Your task to perform on an android device: What's the weather going to be this weekend? Image 0: 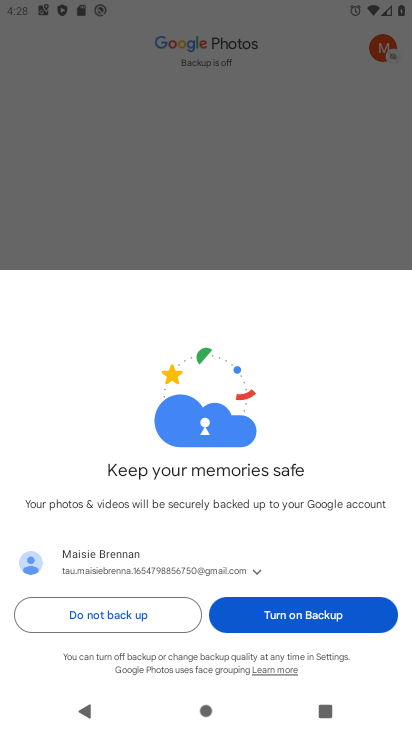
Step 0: press home button
Your task to perform on an android device: What's the weather going to be this weekend? Image 1: 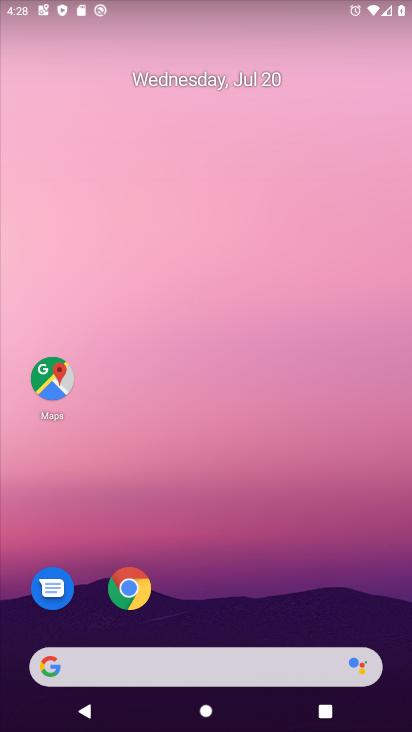
Step 1: drag from (323, 524) to (321, 46)
Your task to perform on an android device: What's the weather going to be this weekend? Image 2: 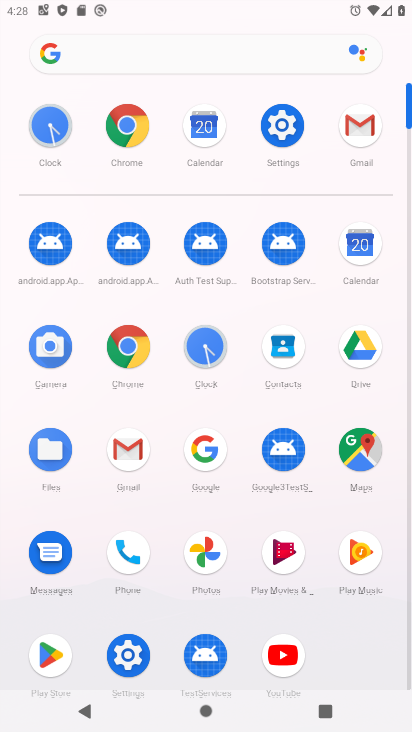
Step 2: click (127, 349)
Your task to perform on an android device: What's the weather going to be this weekend? Image 3: 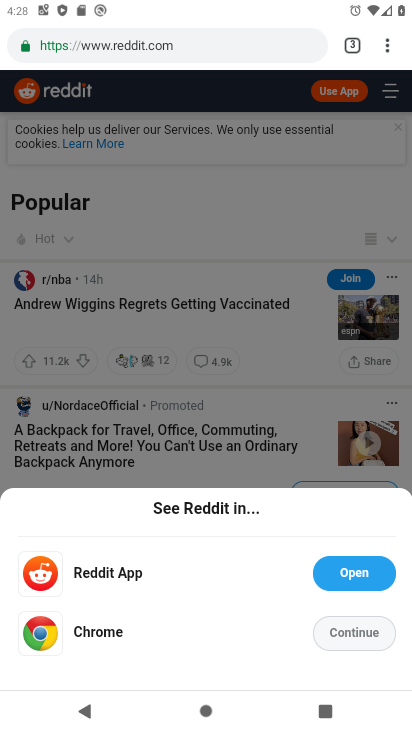
Step 3: click (194, 40)
Your task to perform on an android device: What's the weather going to be this weekend? Image 4: 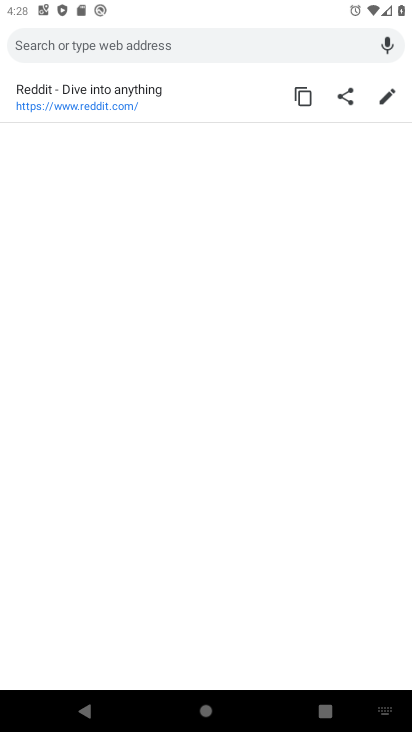
Step 4: type "weather"
Your task to perform on an android device: What's the weather going to be this weekend? Image 5: 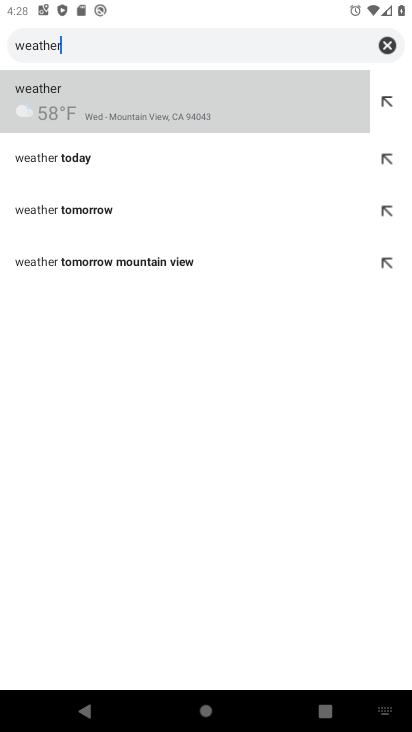
Step 5: click (163, 107)
Your task to perform on an android device: What's the weather going to be this weekend? Image 6: 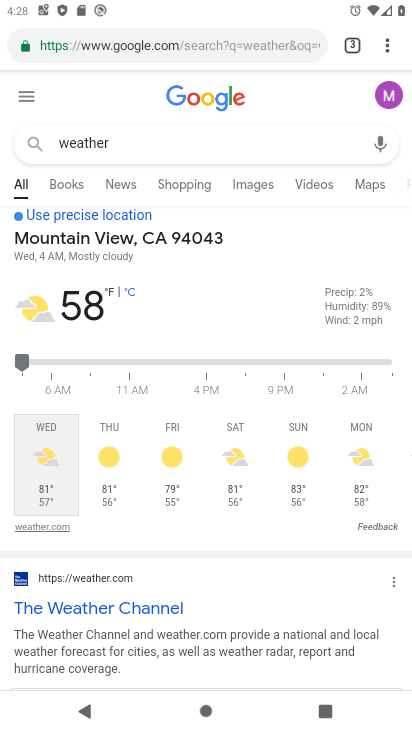
Step 6: click (241, 454)
Your task to perform on an android device: What's the weather going to be this weekend? Image 7: 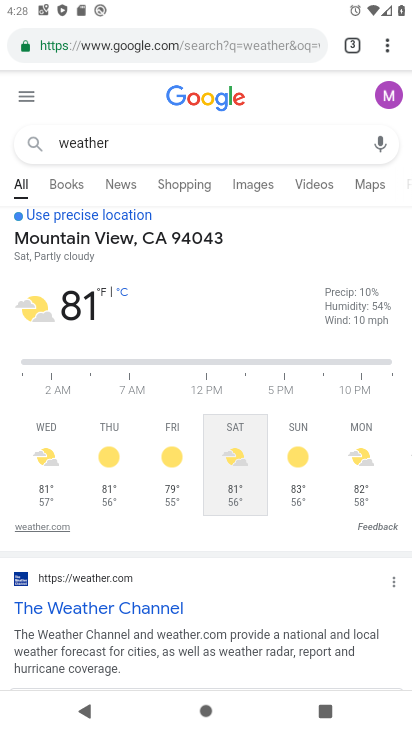
Step 7: task complete